Your task to perform on an android device: Search for flights from Buenos aires to Tokyo Image 0: 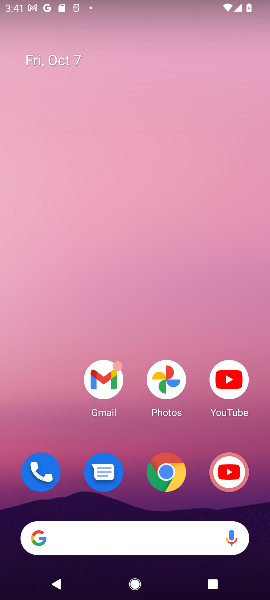
Step 0: click (163, 474)
Your task to perform on an android device: Search for flights from Buenos aires to Tokyo Image 1: 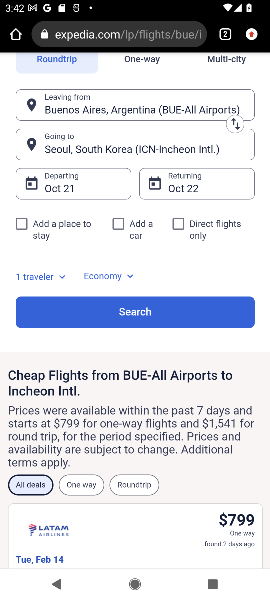
Step 1: click (177, 40)
Your task to perform on an android device: Search for flights from Buenos aires to Tokyo Image 2: 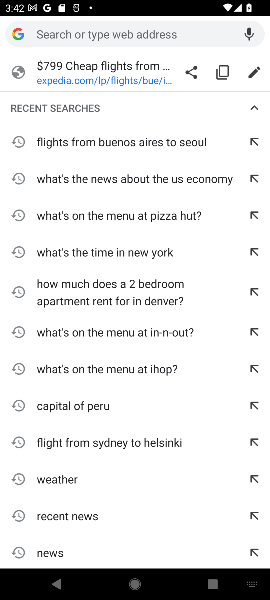
Step 2: click (171, 35)
Your task to perform on an android device: Search for flights from Buenos aires to Tokyo Image 3: 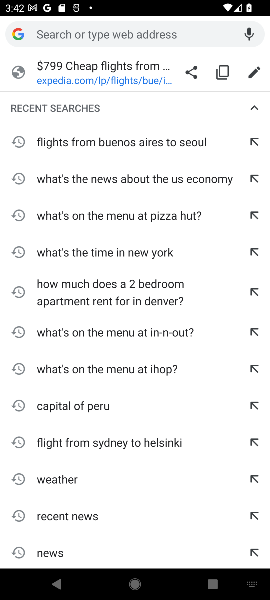
Step 3: type "Flights from Buenos aires to Tokyo"
Your task to perform on an android device: Search for flights from Buenos aires to Tokyo Image 4: 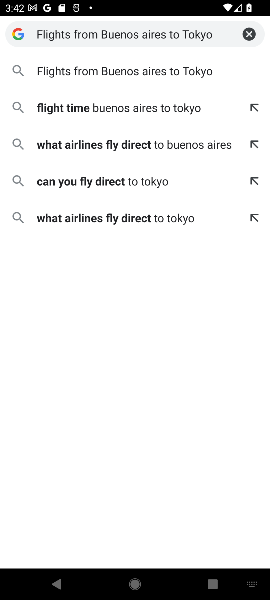
Step 4: click (83, 66)
Your task to perform on an android device: Search for flights from Buenos aires to Tokyo Image 5: 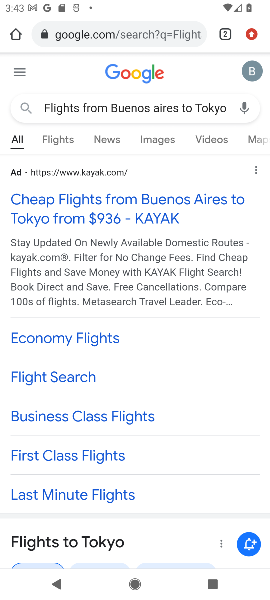
Step 5: task complete